Your task to perform on an android device: delete the emails in spam in the gmail app Image 0: 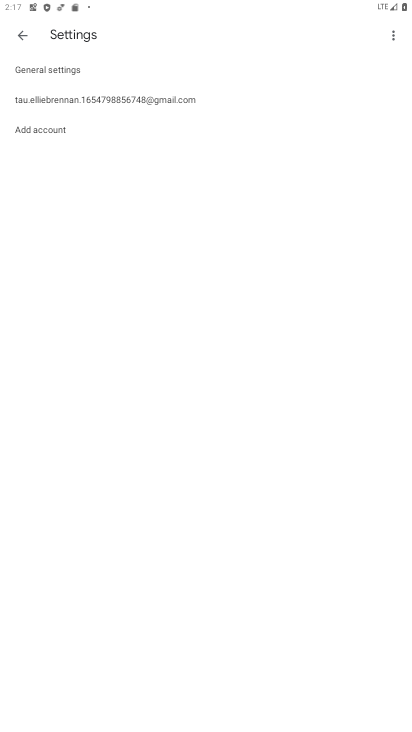
Step 0: drag from (197, 730) to (210, 506)
Your task to perform on an android device: delete the emails in spam in the gmail app Image 1: 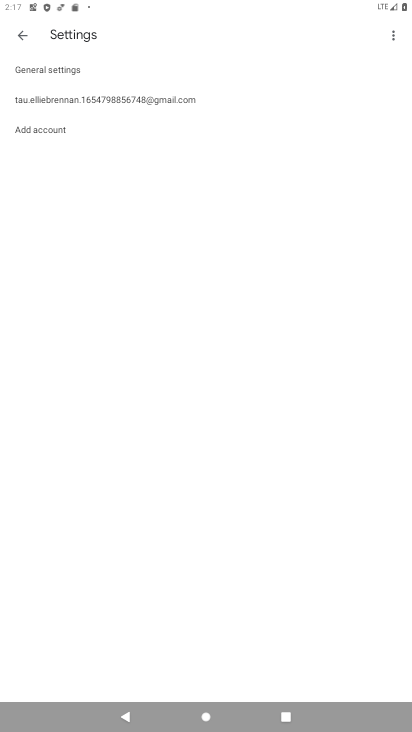
Step 1: press home button
Your task to perform on an android device: delete the emails in spam in the gmail app Image 2: 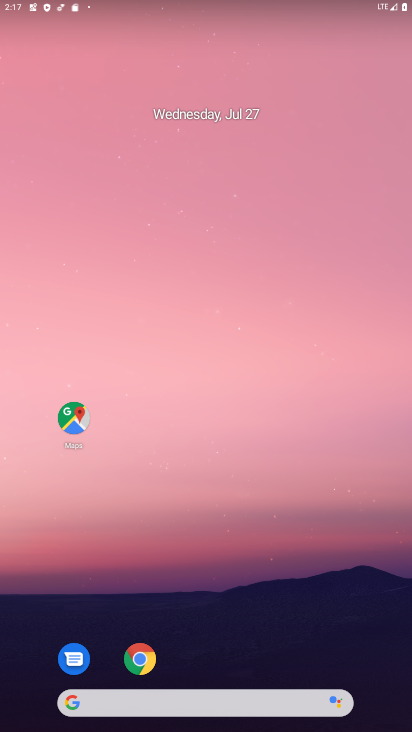
Step 2: drag from (222, 706) to (231, 137)
Your task to perform on an android device: delete the emails in spam in the gmail app Image 3: 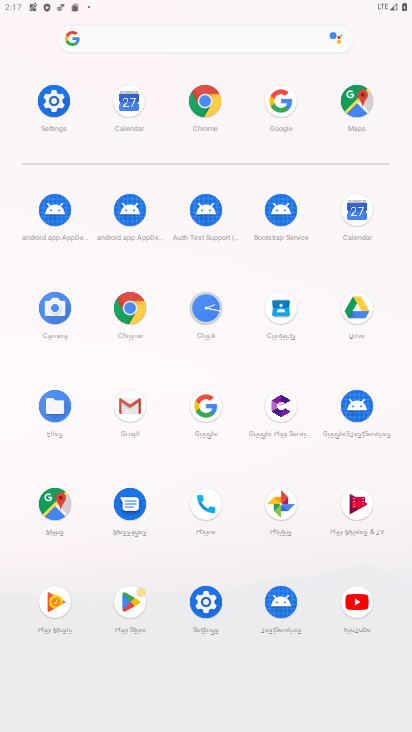
Step 3: click (133, 406)
Your task to perform on an android device: delete the emails in spam in the gmail app Image 4: 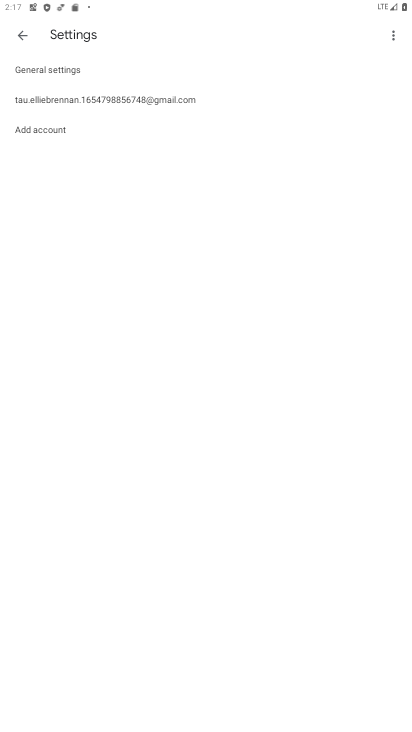
Step 4: click (23, 34)
Your task to perform on an android device: delete the emails in spam in the gmail app Image 5: 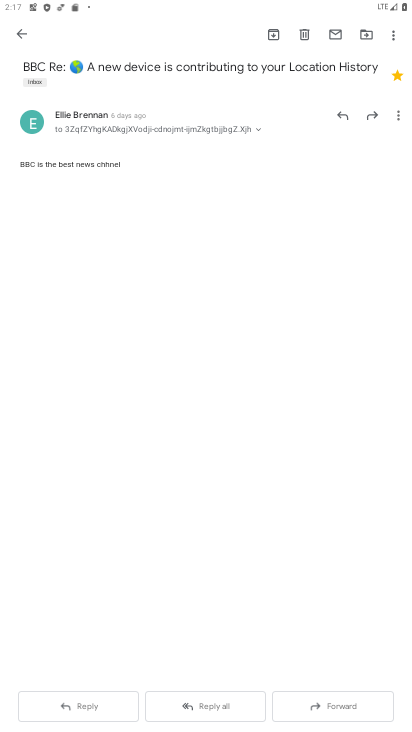
Step 5: click (25, 33)
Your task to perform on an android device: delete the emails in spam in the gmail app Image 6: 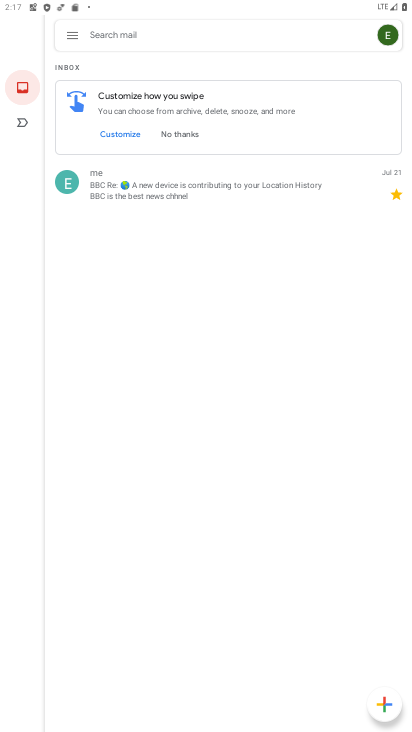
Step 6: click (151, 192)
Your task to perform on an android device: delete the emails in spam in the gmail app Image 7: 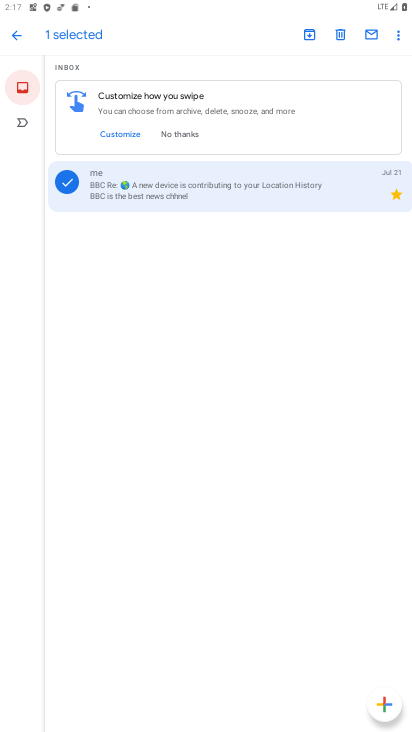
Step 7: click (340, 34)
Your task to perform on an android device: delete the emails in spam in the gmail app Image 8: 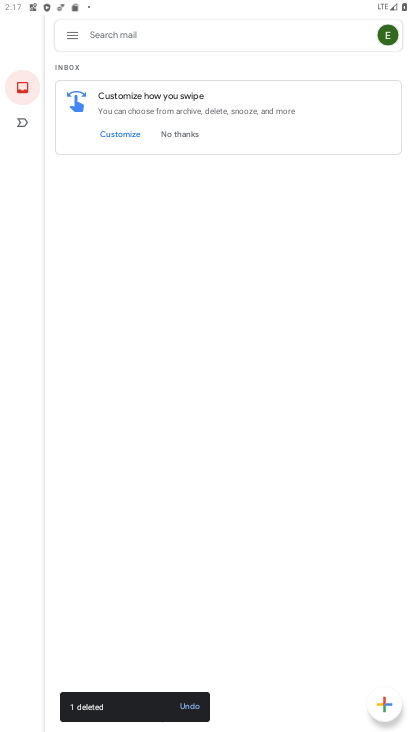
Step 8: task complete